Your task to perform on an android device: remove spam from my inbox in the gmail app Image 0: 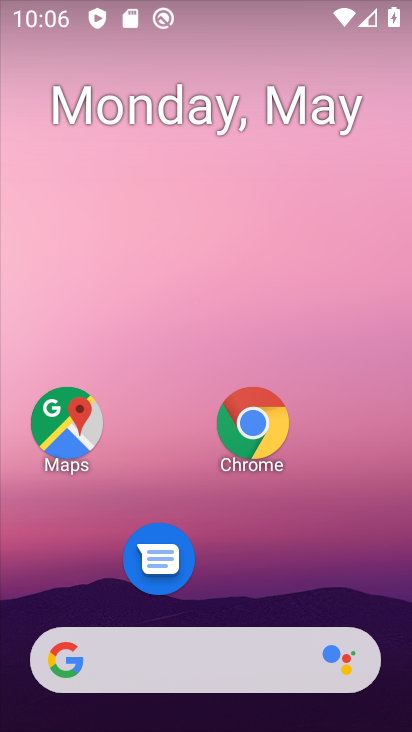
Step 0: drag from (221, 569) to (214, 194)
Your task to perform on an android device: remove spam from my inbox in the gmail app Image 1: 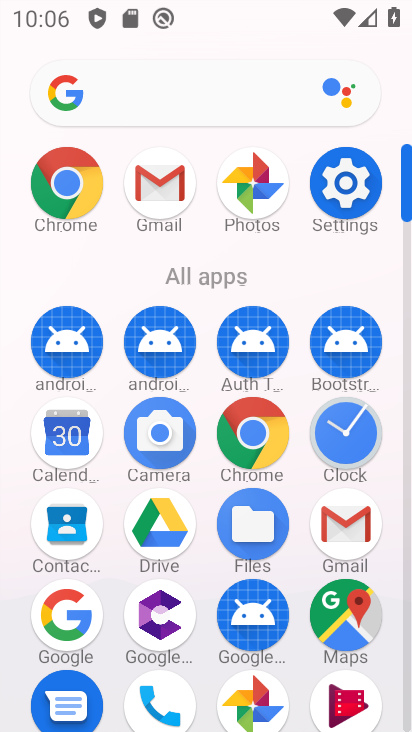
Step 1: click (179, 192)
Your task to perform on an android device: remove spam from my inbox in the gmail app Image 2: 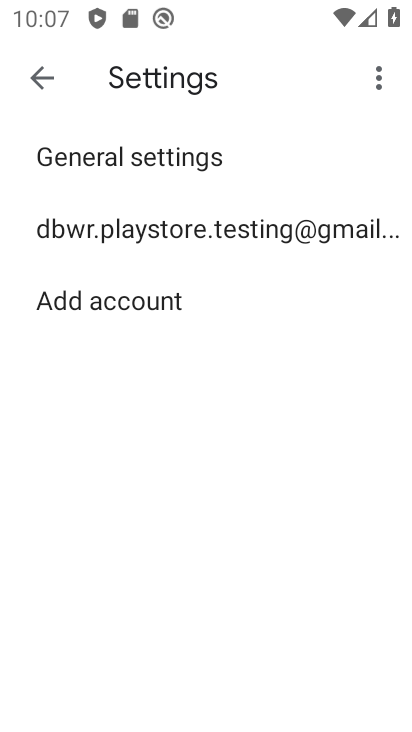
Step 2: click (51, 74)
Your task to perform on an android device: remove spam from my inbox in the gmail app Image 3: 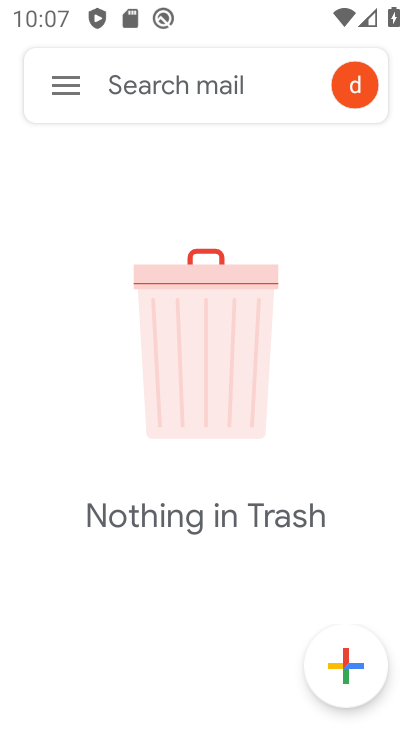
Step 3: click (54, 94)
Your task to perform on an android device: remove spam from my inbox in the gmail app Image 4: 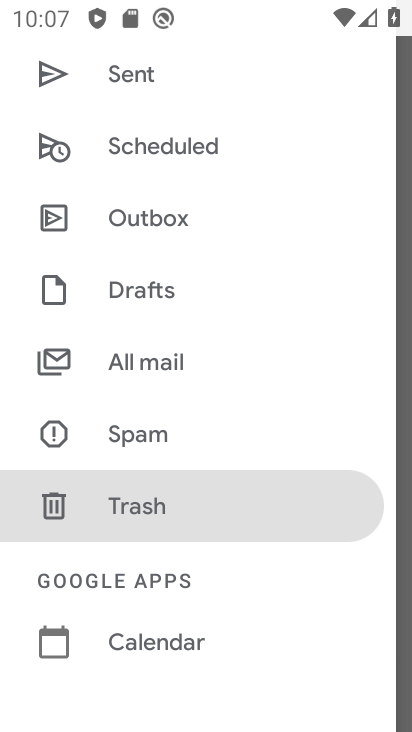
Step 4: click (109, 445)
Your task to perform on an android device: remove spam from my inbox in the gmail app Image 5: 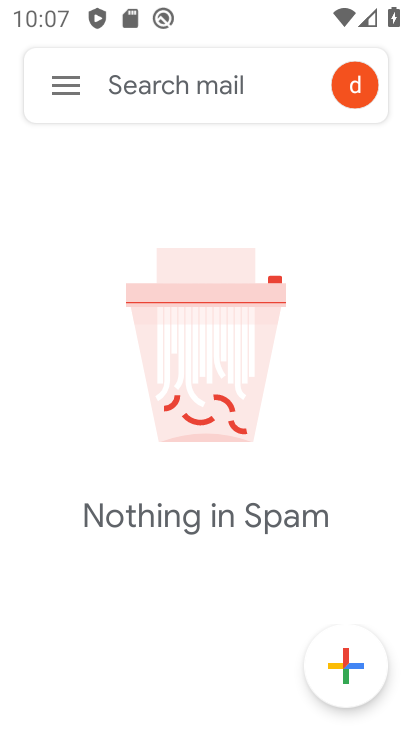
Step 5: task complete